Your task to perform on an android device: Open settings Image 0: 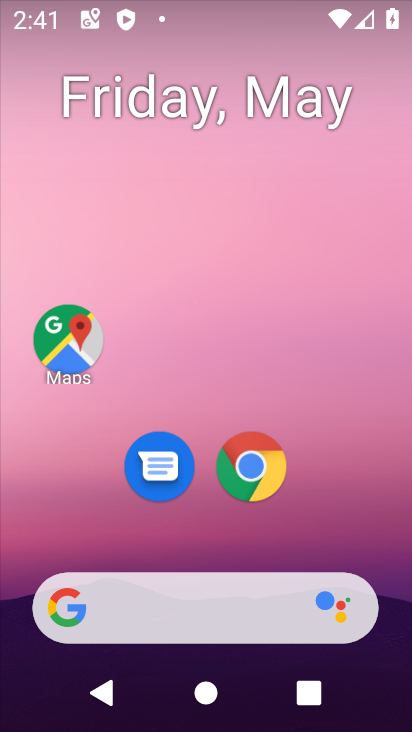
Step 0: drag from (187, 562) to (315, 6)
Your task to perform on an android device: Open settings Image 1: 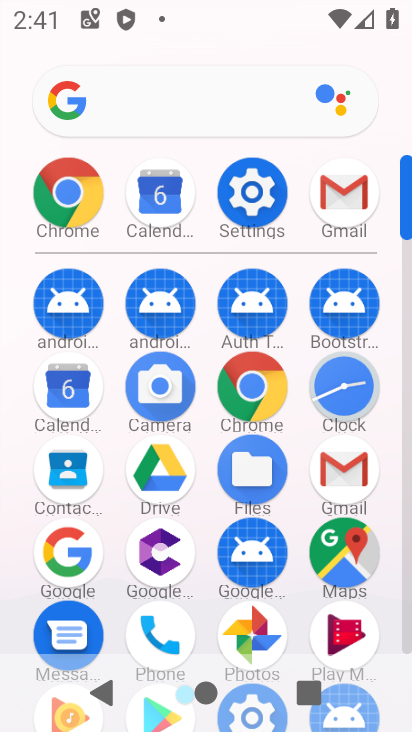
Step 1: click (252, 180)
Your task to perform on an android device: Open settings Image 2: 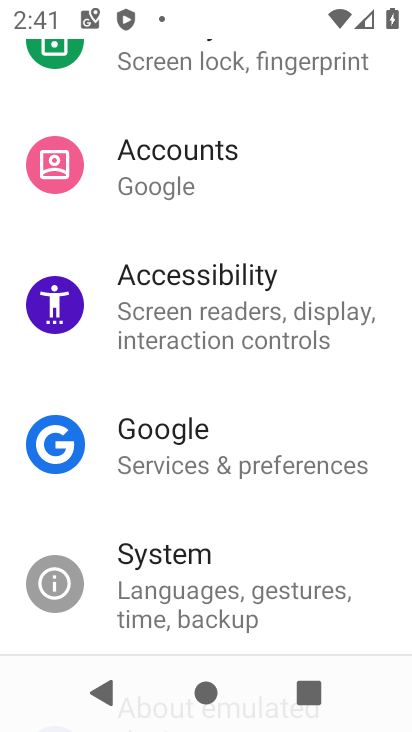
Step 2: task complete